Your task to perform on an android device: When is my next meeting? Image 0: 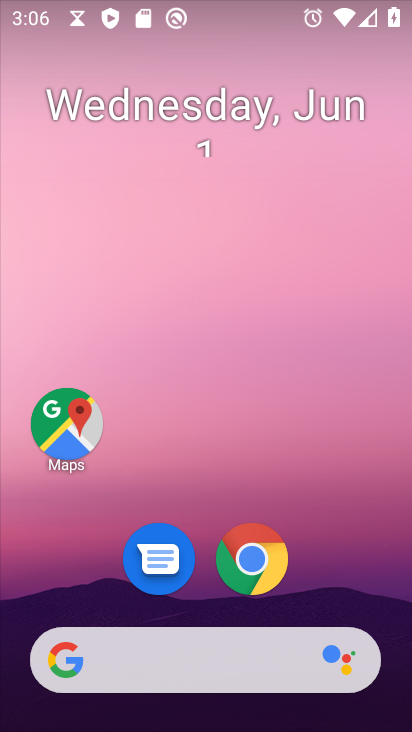
Step 0: drag from (324, 565) to (266, 0)
Your task to perform on an android device: When is my next meeting? Image 1: 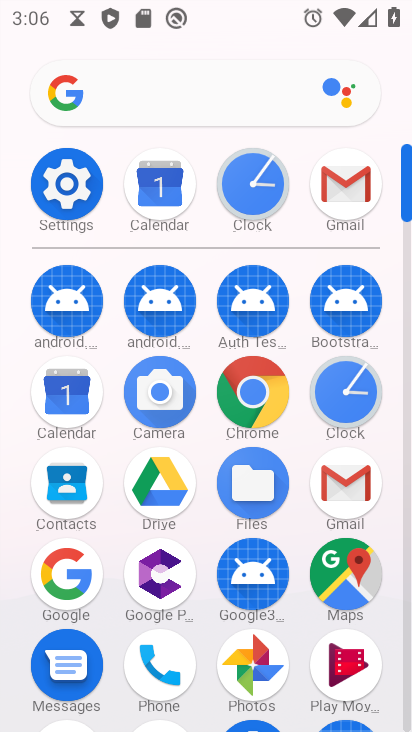
Step 1: click (91, 398)
Your task to perform on an android device: When is my next meeting? Image 2: 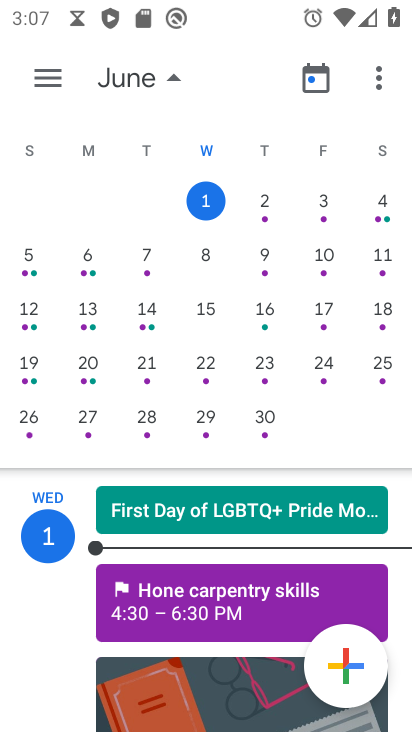
Step 2: task complete